Your task to perform on an android device: Open CNN.com Image 0: 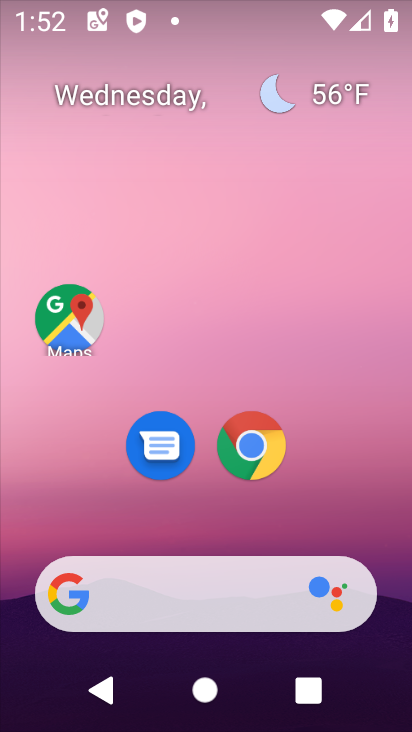
Step 0: click (225, 450)
Your task to perform on an android device: Open CNN.com Image 1: 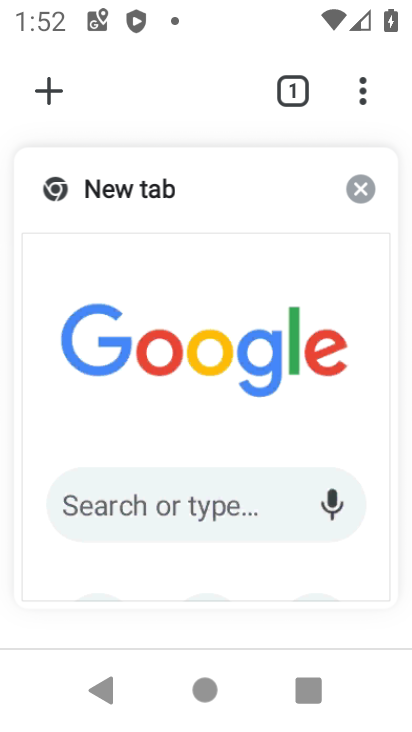
Step 1: click (160, 340)
Your task to perform on an android device: Open CNN.com Image 2: 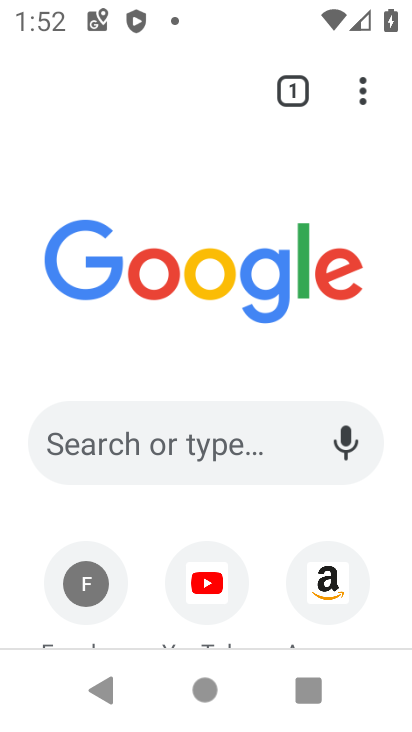
Step 2: click (190, 467)
Your task to perform on an android device: Open CNN.com Image 3: 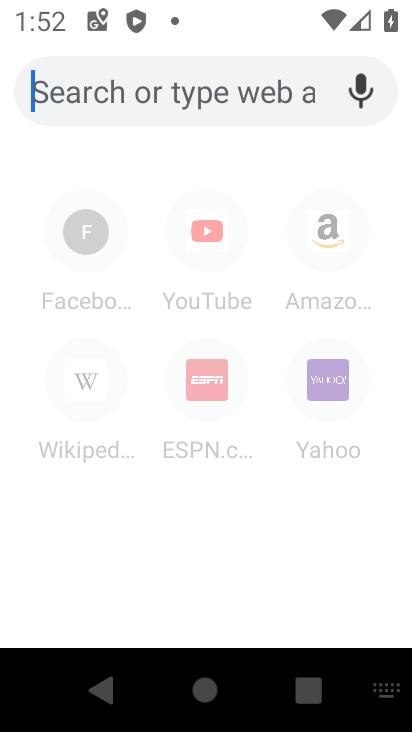
Step 3: type "cnn"
Your task to perform on an android device: Open CNN.com Image 4: 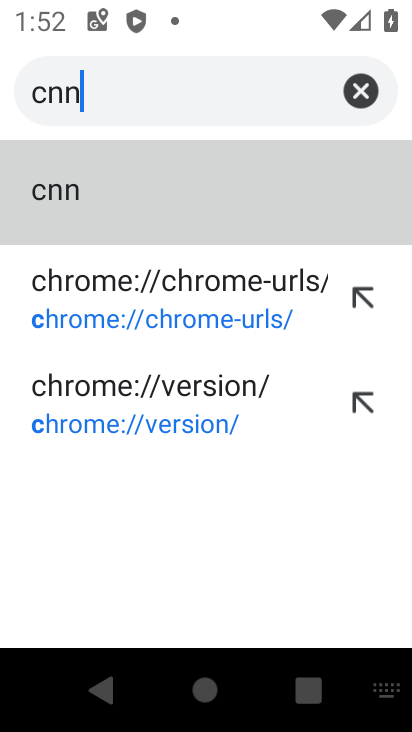
Step 4: type ""
Your task to perform on an android device: Open CNN.com Image 5: 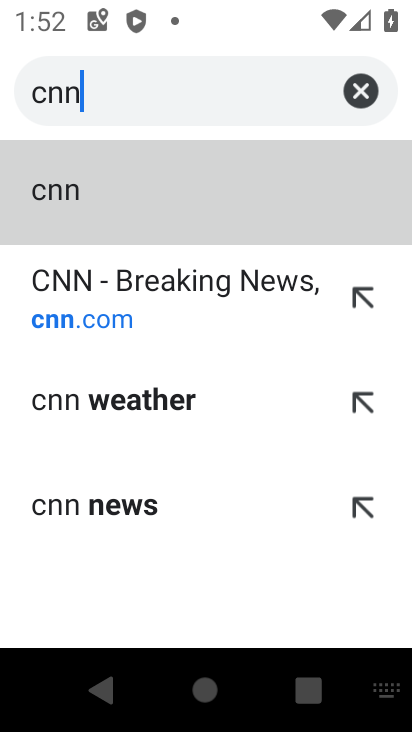
Step 5: click (157, 291)
Your task to perform on an android device: Open CNN.com Image 6: 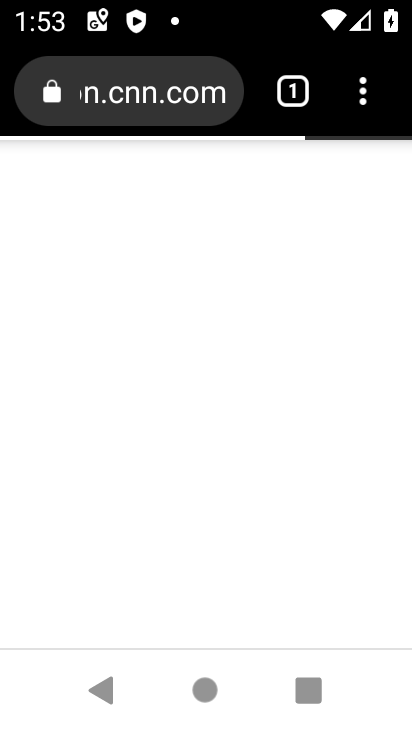
Step 6: task complete